Your task to perform on an android device: Open Chrome and go to settings Image 0: 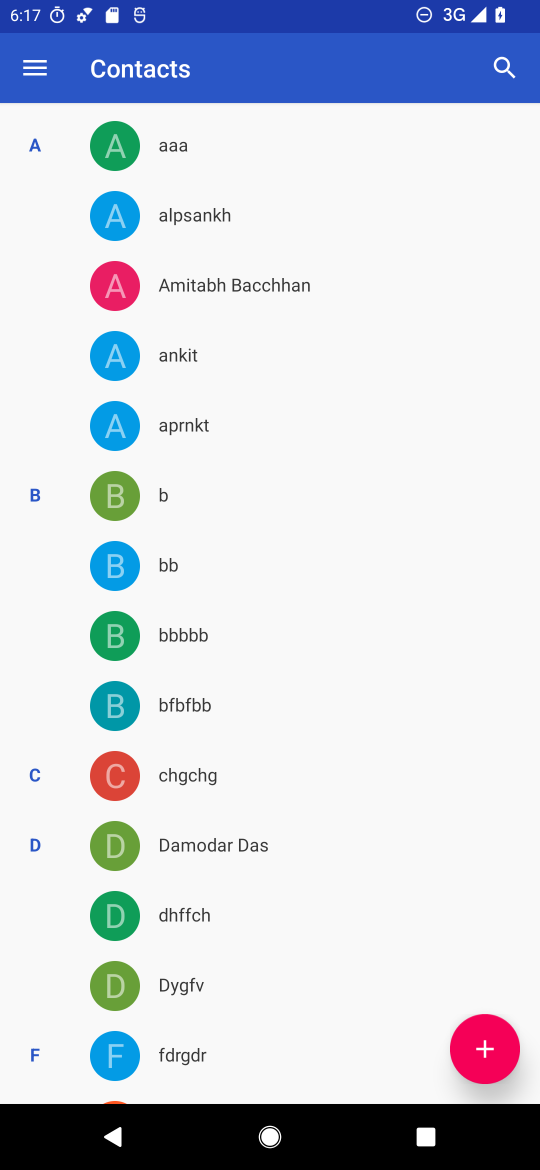
Step 0: press home button
Your task to perform on an android device: Open Chrome and go to settings Image 1: 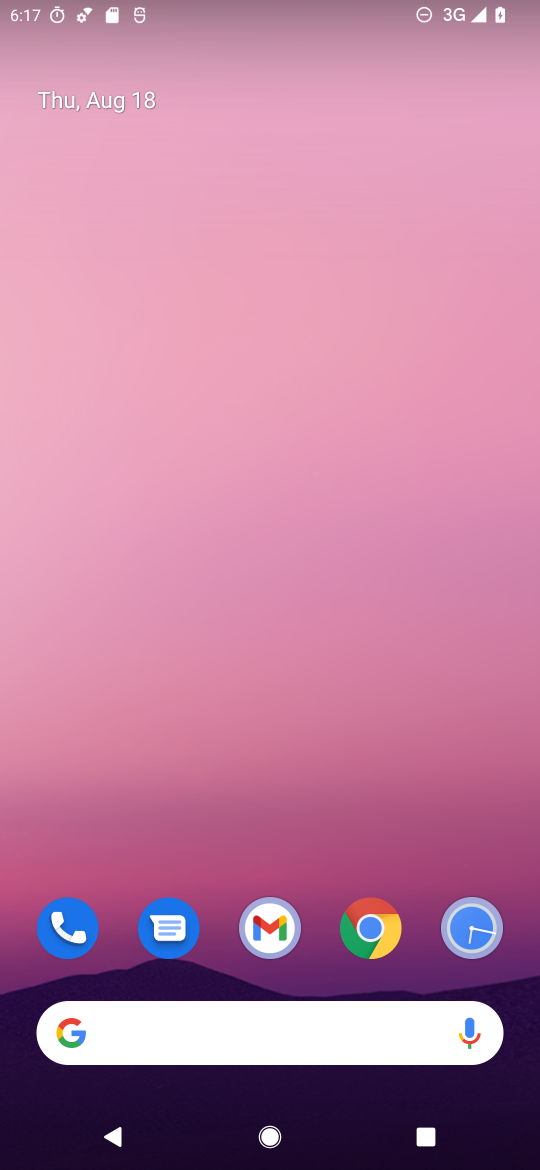
Step 1: drag from (334, 845) to (335, 198)
Your task to perform on an android device: Open Chrome and go to settings Image 2: 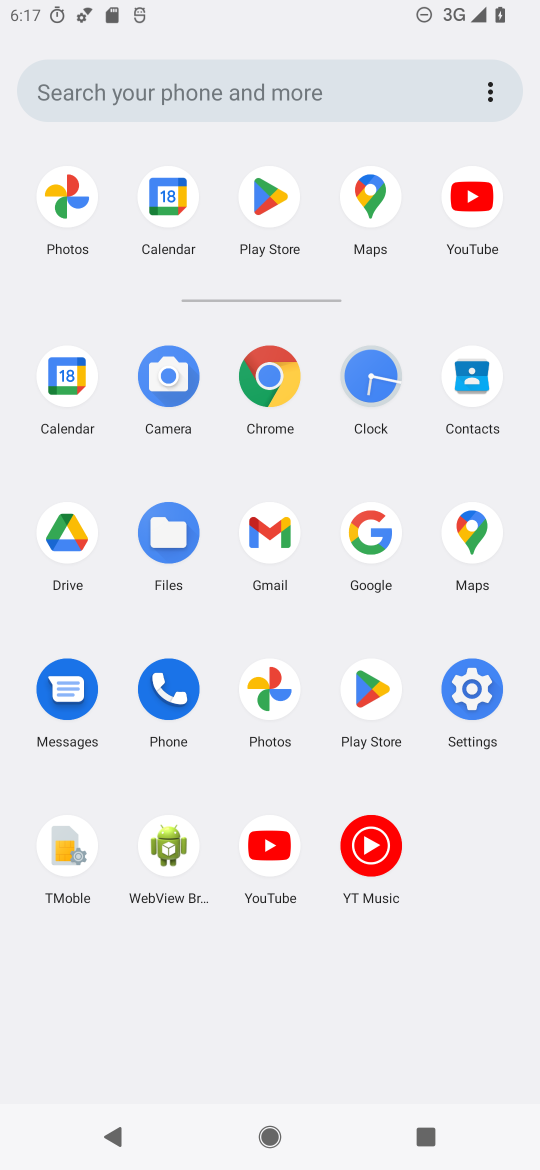
Step 2: click (270, 378)
Your task to perform on an android device: Open Chrome and go to settings Image 3: 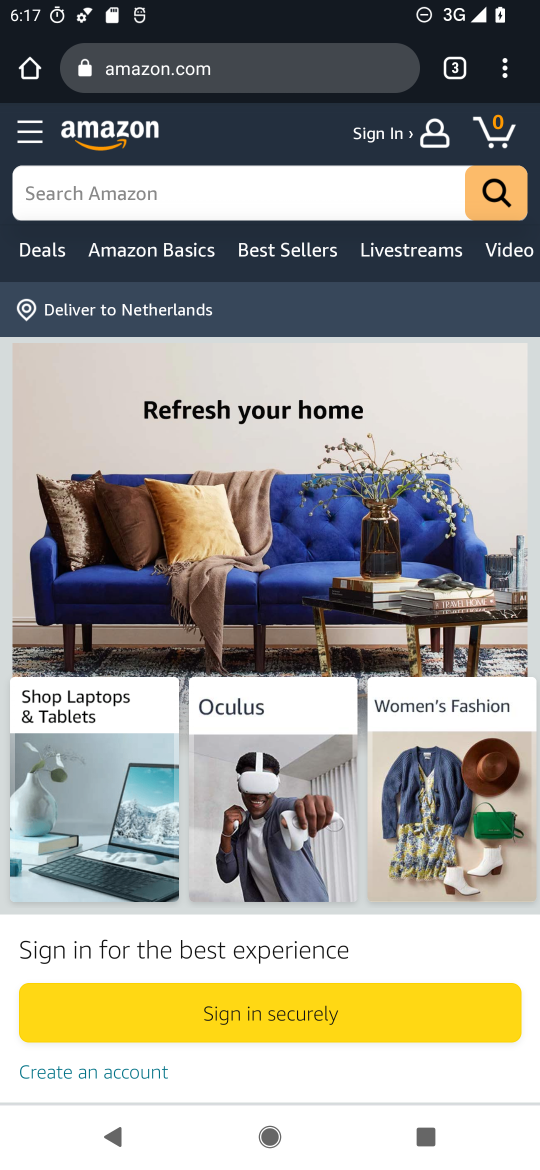
Step 3: task complete